Your task to perform on an android device: turn pop-ups off in chrome Image 0: 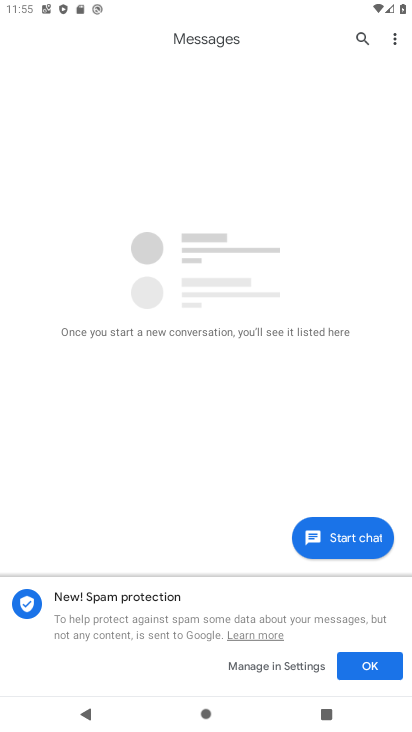
Step 0: press home button
Your task to perform on an android device: turn pop-ups off in chrome Image 1: 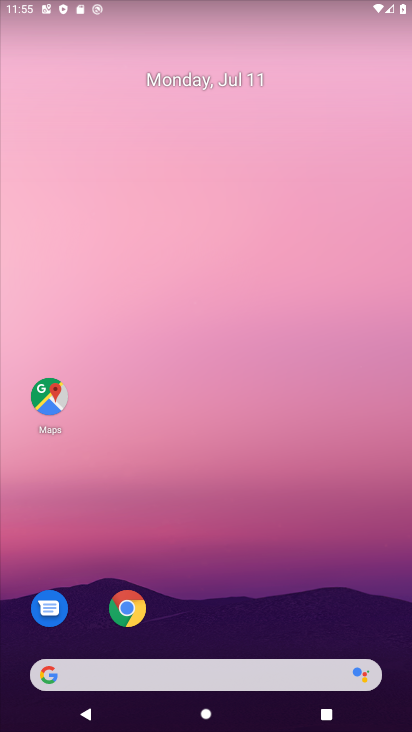
Step 1: click (122, 612)
Your task to perform on an android device: turn pop-ups off in chrome Image 2: 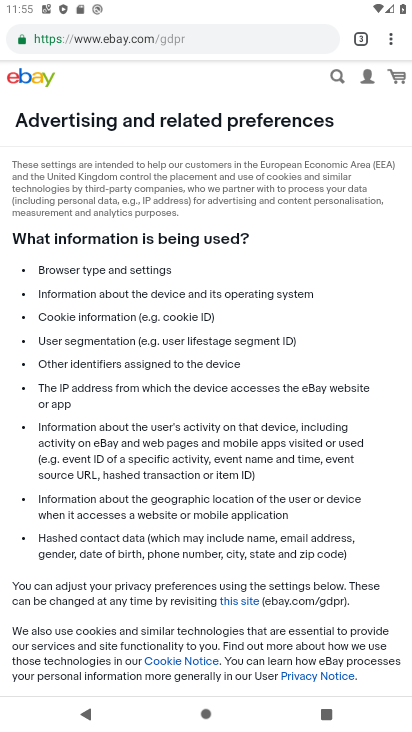
Step 2: click (397, 36)
Your task to perform on an android device: turn pop-ups off in chrome Image 3: 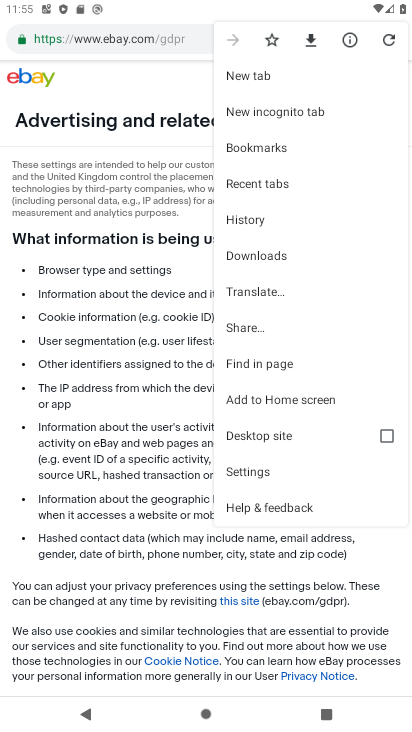
Step 3: click (259, 479)
Your task to perform on an android device: turn pop-ups off in chrome Image 4: 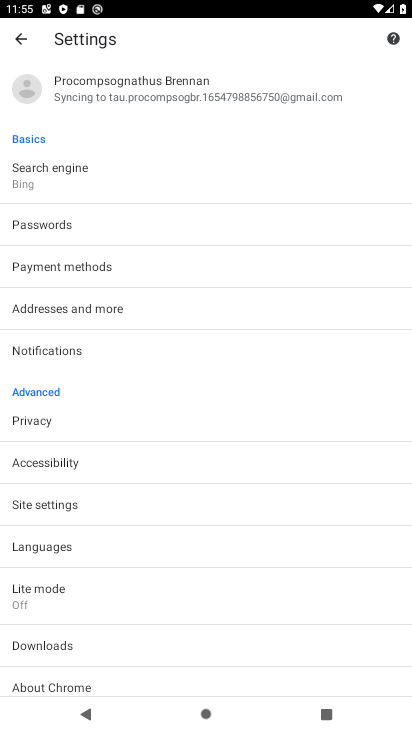
Step 4: click (95, 510)
Your task to perform on an android device: turn pop-ups off in chrome Image 5: 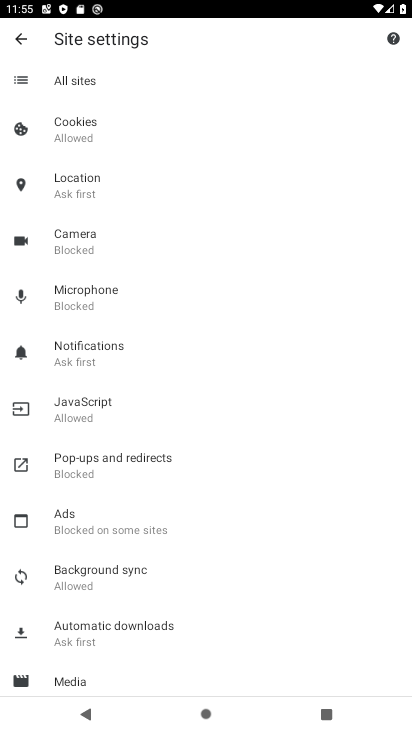
Step 5: click (102, 465)
Your task to perform on an android device: turn pop-ups off in chrome Image 6: 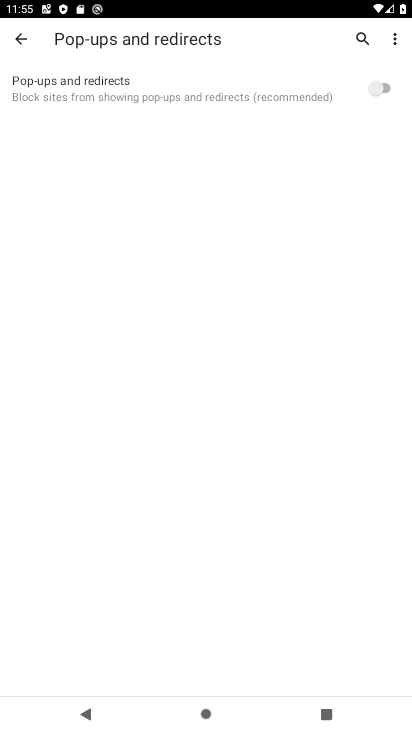
Step 6: task complete